Your task to perform on an android device: Open calendar and show me the first week of next month Image 0: 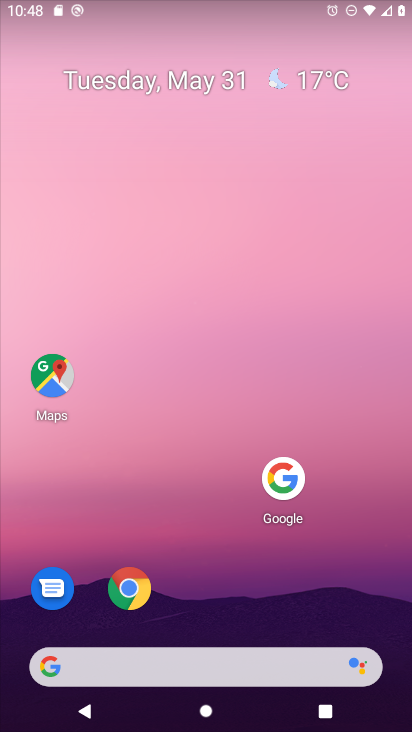
Step 0: press home button
Your task to perform on an android device: Open calendar and show me the first week of next month Image 1: 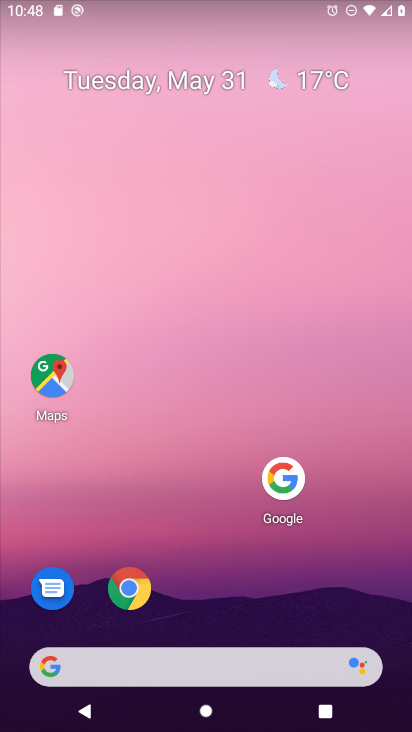
Step 1: drag from (202, 663) to (241, 285)
Your task to perform on an android device: Open calendar and show me the first week of next month Image 2: 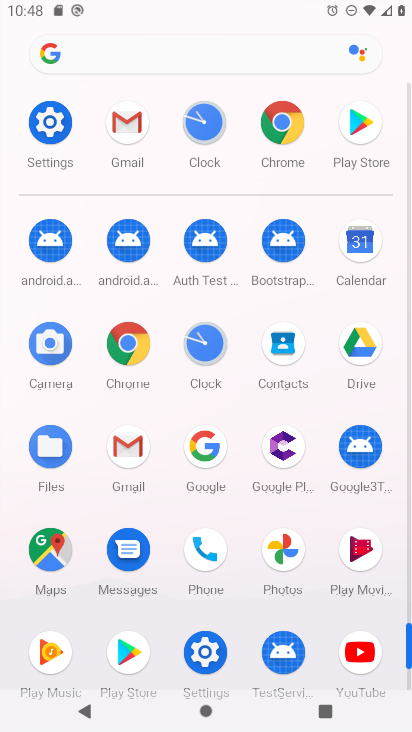
Step 2: click (353, 249)
Your task to perform on an android device: Open calendar and show me the first week of next month Image 3: 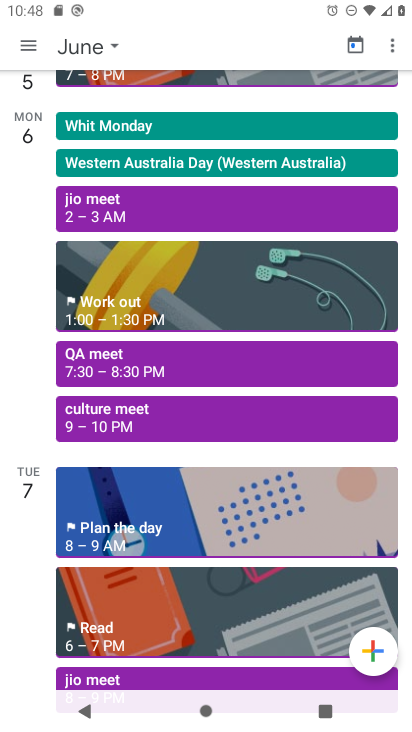
Step 3: click (78, 44)
Your task to perform on an android device: Open calendar and show me the first week of next month Image 4: 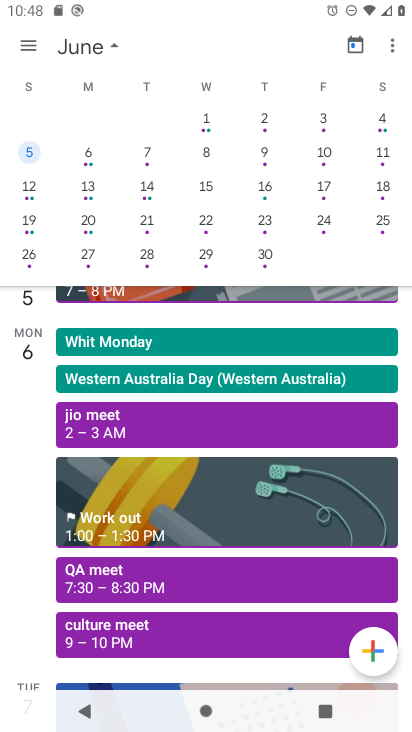
Step 4: click (29, 44)
Your task to perform on an android device: Open calendar and show me the first week of next month Image 5: 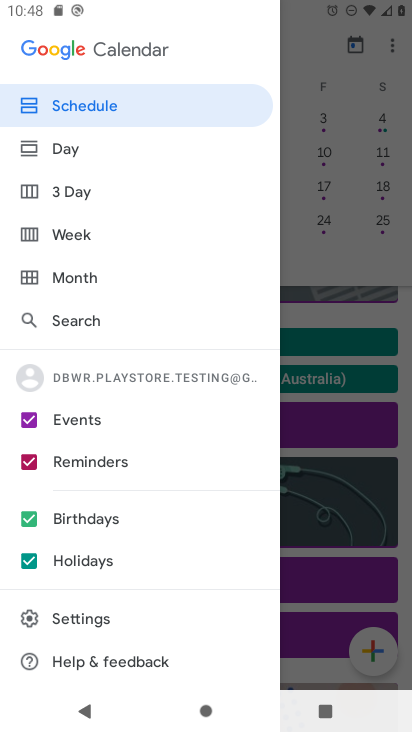
Step 5: click (66, 230)
Your task to perform on an android device: Open calendar and show me the first week of next month Image 6: 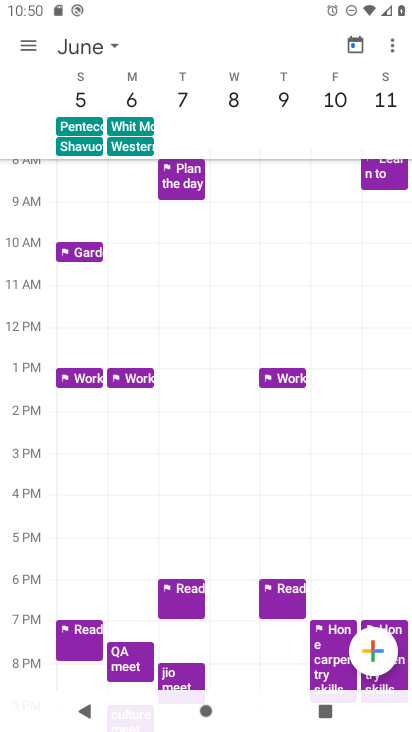
Step 6: task complete